Your task to perform on an android device: change the upload size in google photos Image 0: 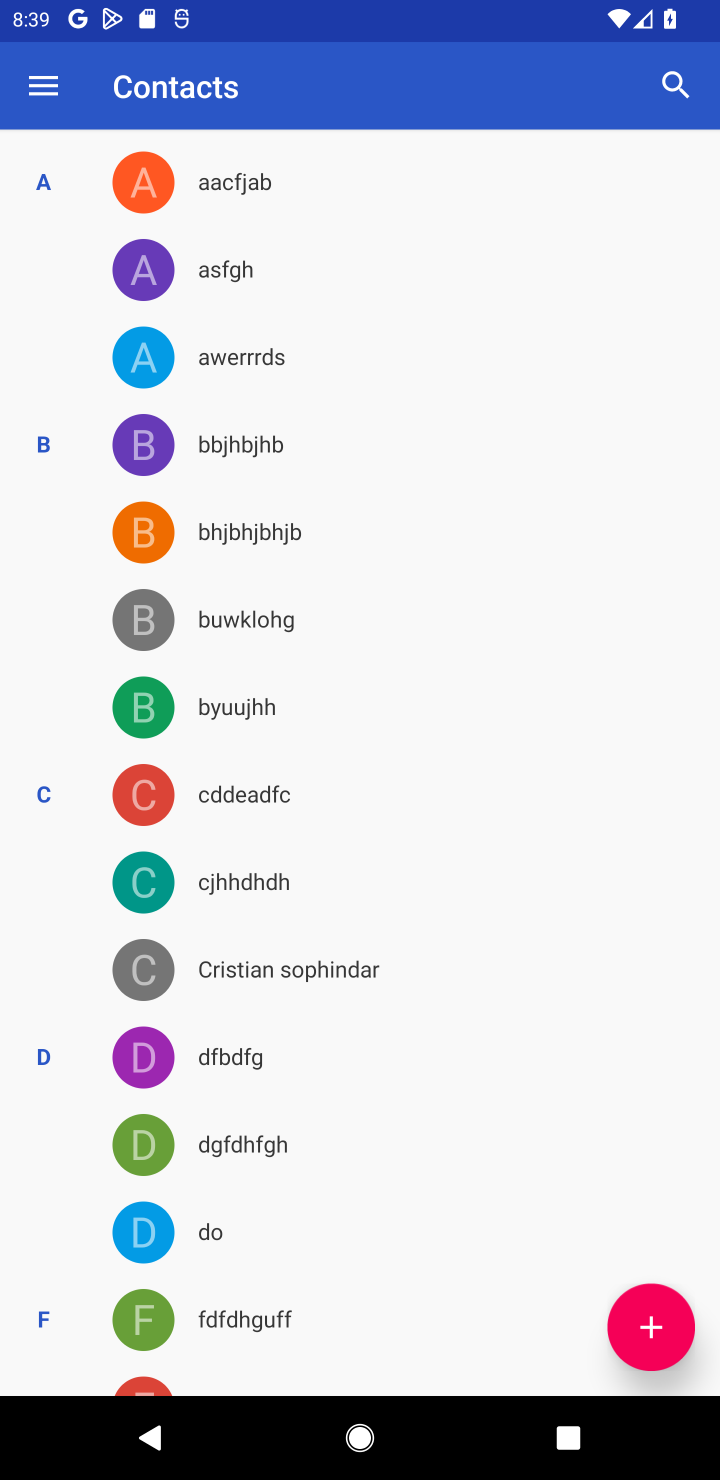
Step 0: press home button
Your task to perform on an android device: change the upload size in google photos Image 1: 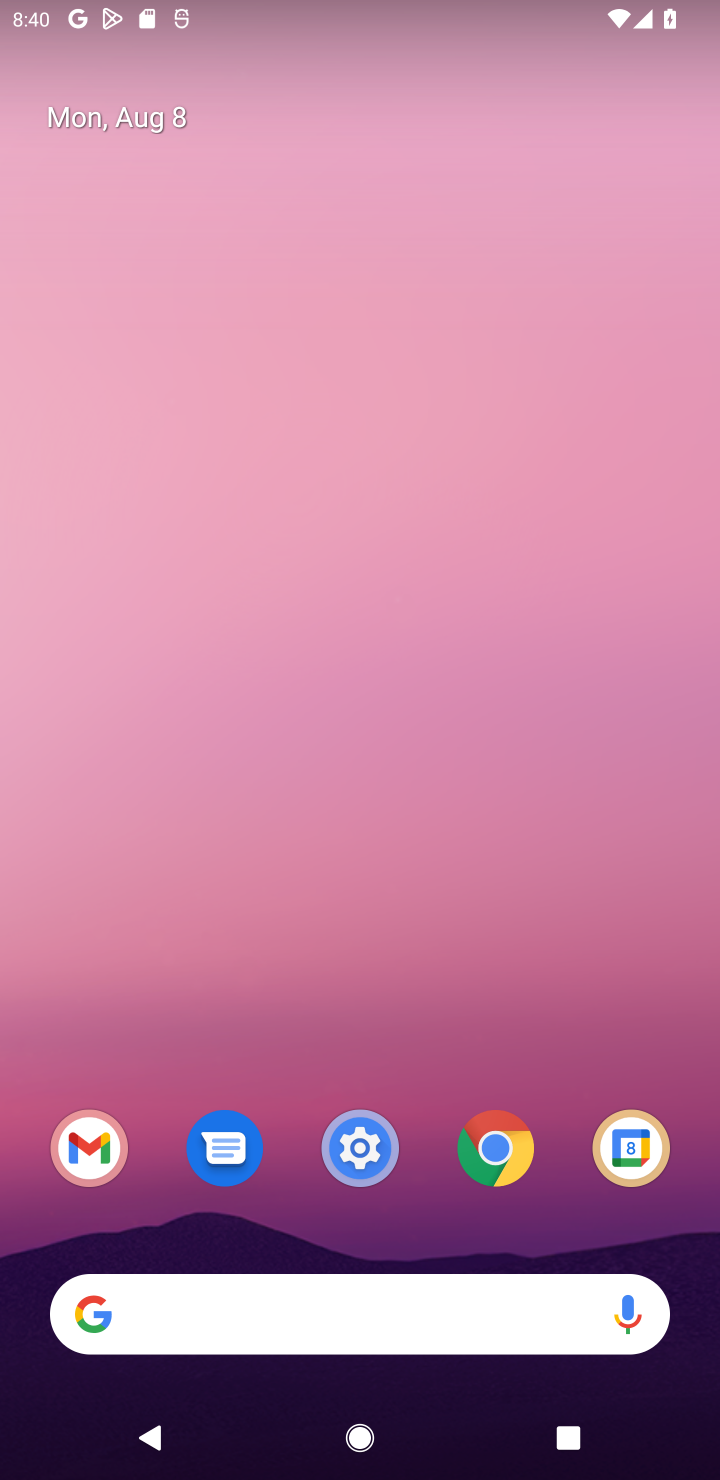
Step 1: drag from (381, 1091) to (397, 111)
Your task to perform on an android device: change the upload size in google photos Image 2: 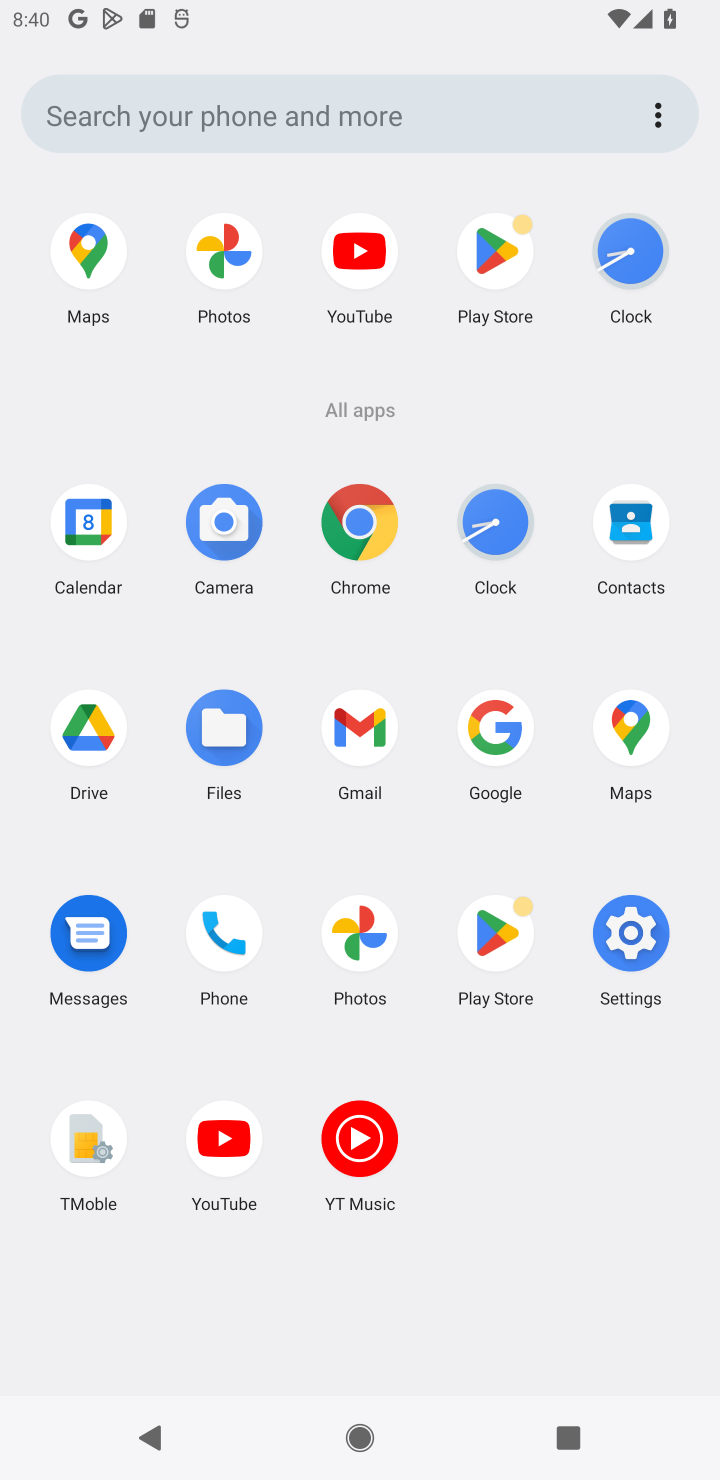
Step 2: click (366, 955)
Your task to perform on an android device: change the upload size in google photos Image 3: 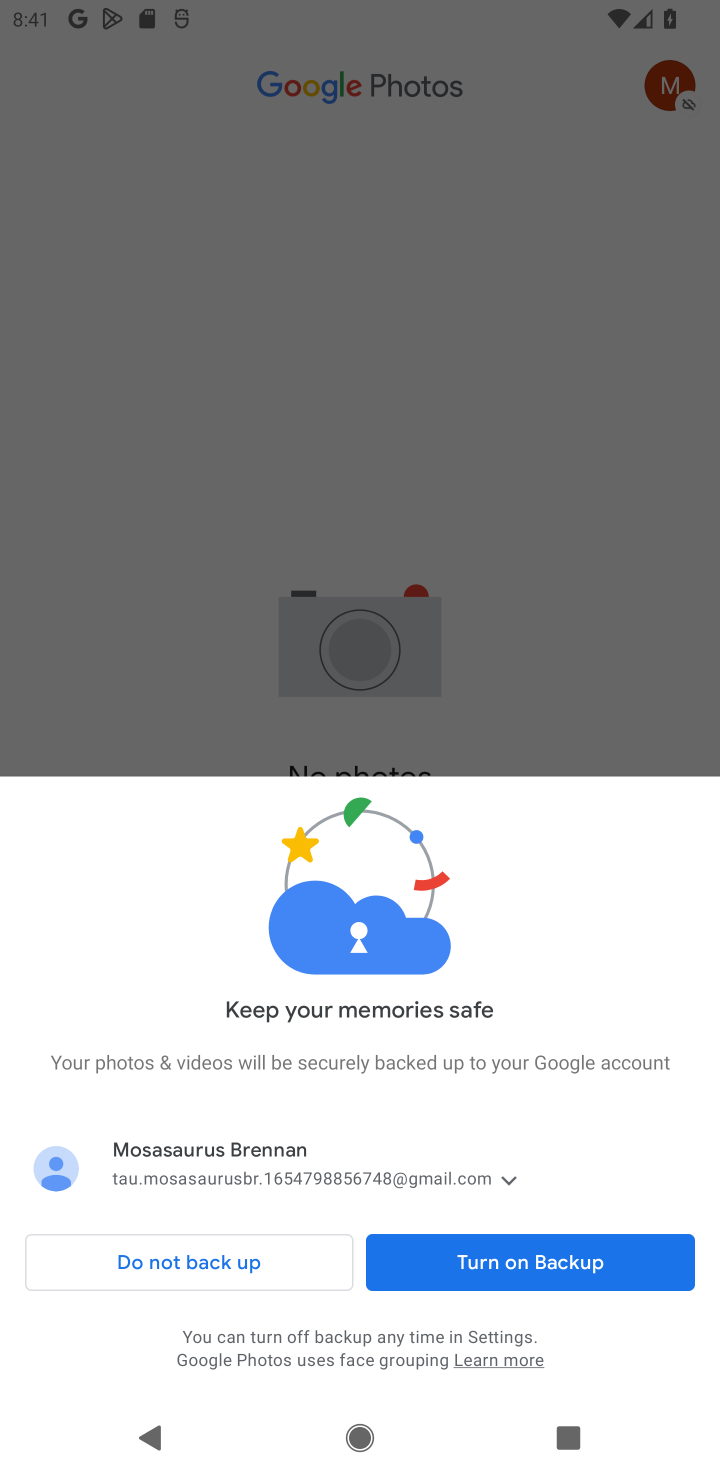
Step 3: click (496, 1260)
Your task to perform on an android device: change the upload size in google photos Image 4: 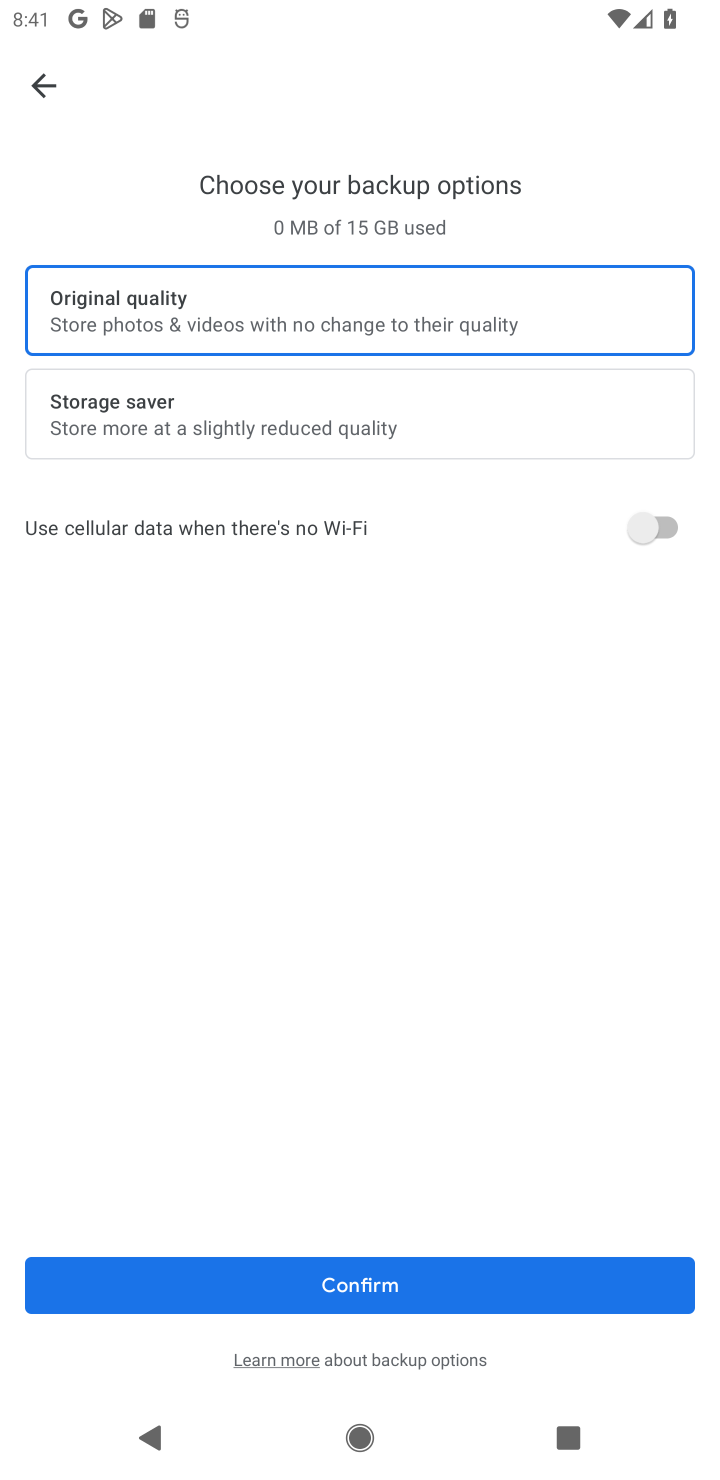
Step 4: click (324, 1289)
Your task to perform on an android device: change the upload size in google photos Image 5: 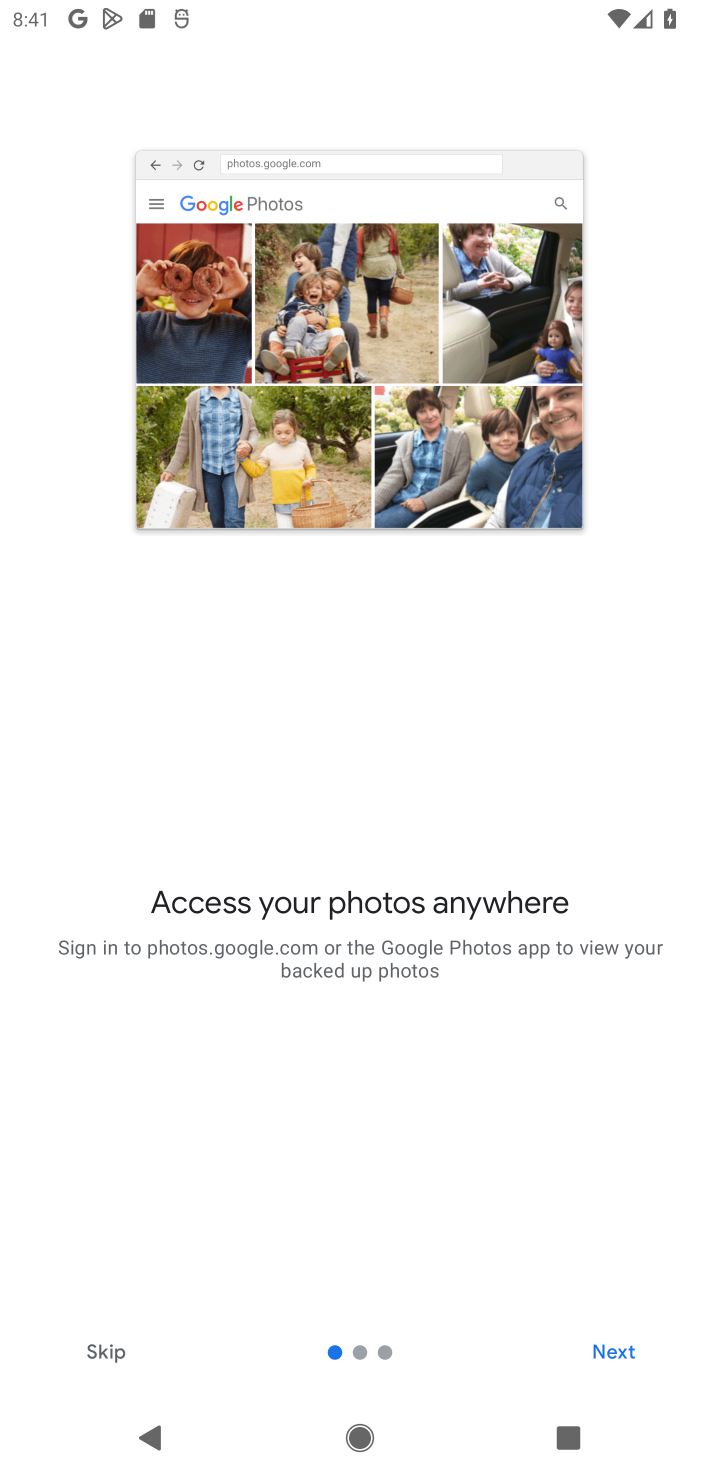
Step 5: click (135, 1341)
Your task to perform on an android device: change the upload size in google photos Image 6: 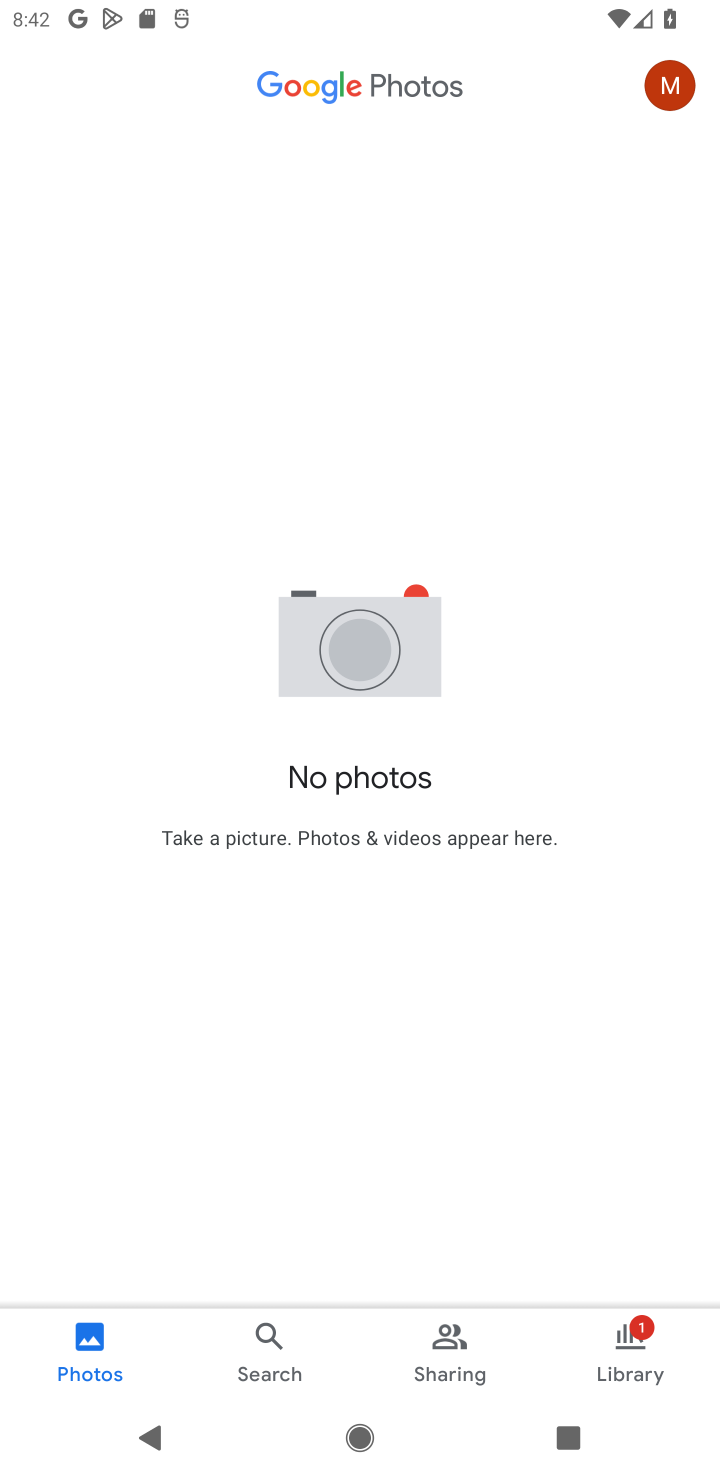
Step 6: click (662, 81)
Your task to perform on an android device: change the upload size in google photos Image 7: 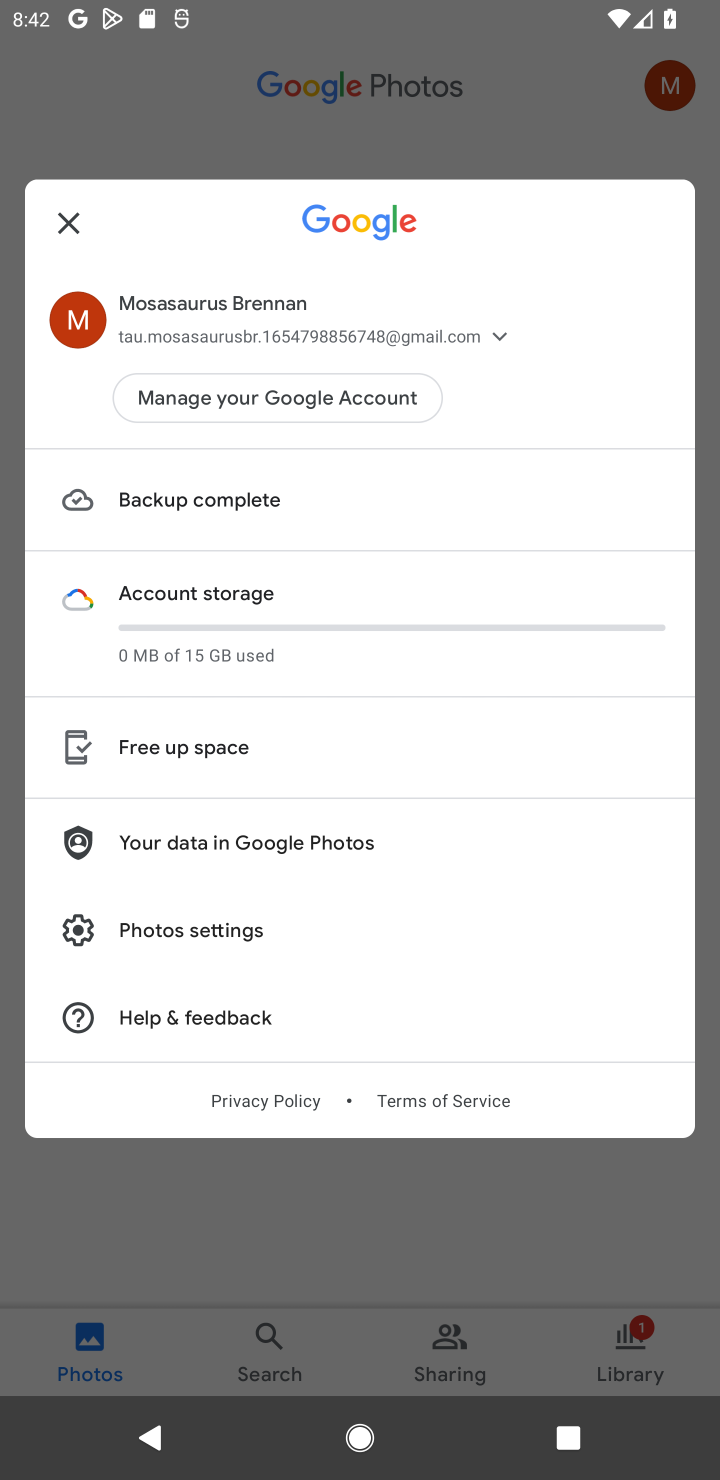
Step 7: click (203, 944)
Your task to perform on an android device: change the upload size in google photos Image 8: 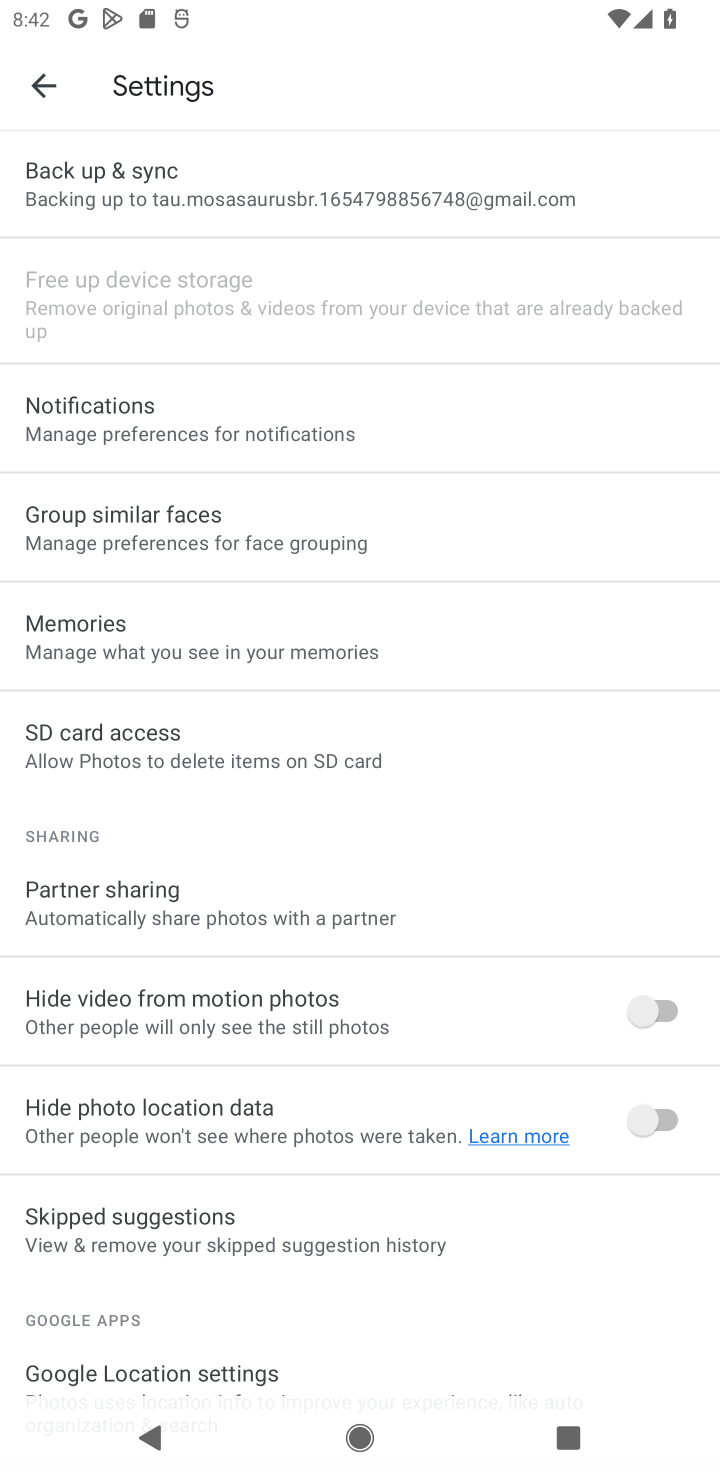
Step 8: click (148, 174)
Your task to perform on an android device: change the upload size in google photos Image 9: 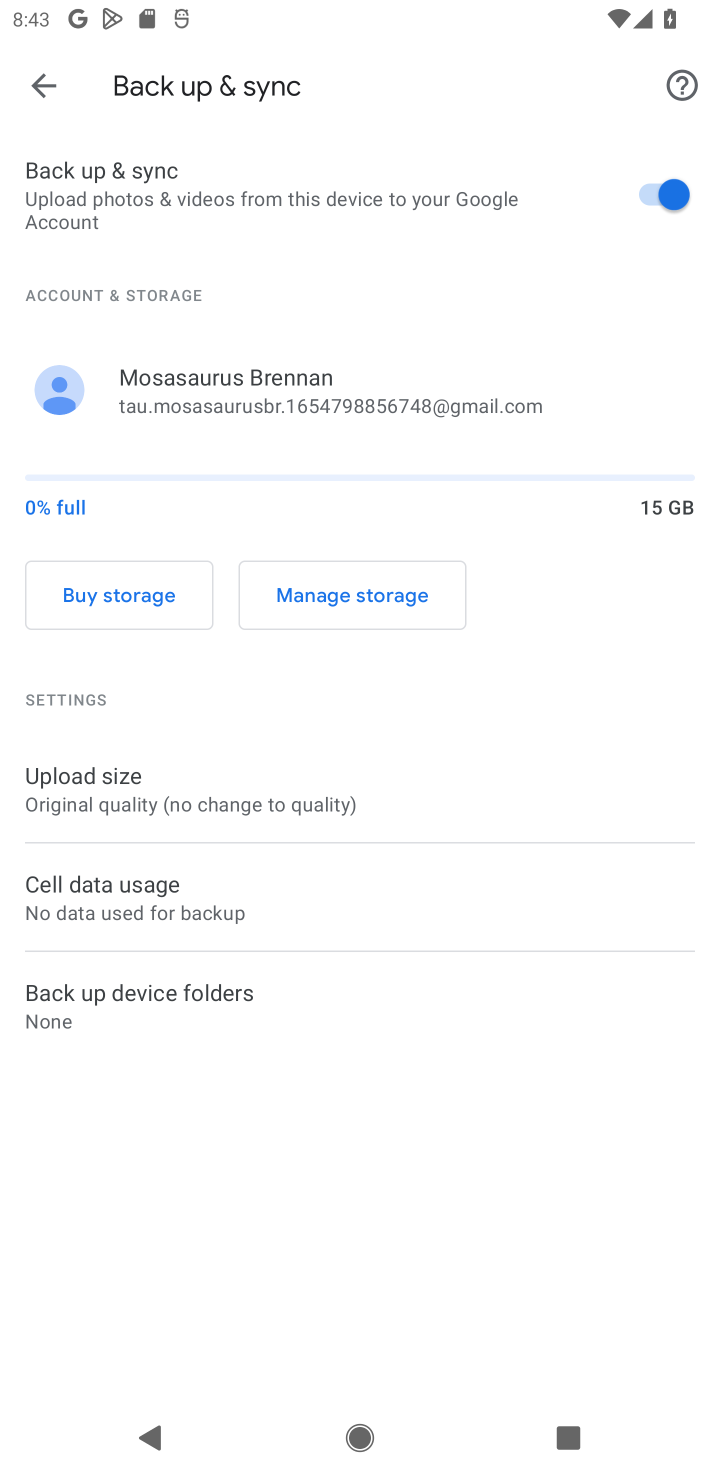
Step 9: click (135, 769)
Your task to perform on an android device: change the upload size in google photos Image 10: 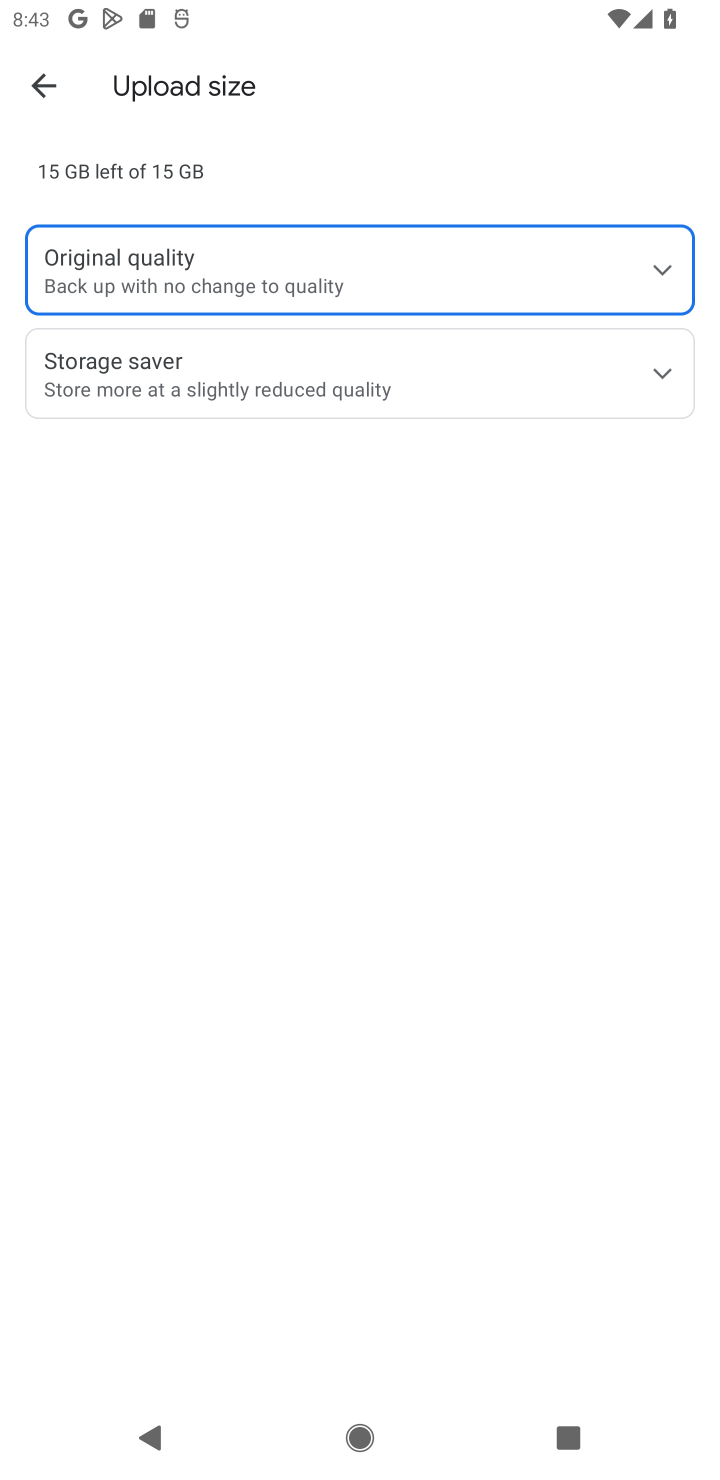
Step 10: click (302, 416)
Your task to perform on an android device: change the upload size in google photos Image 11: 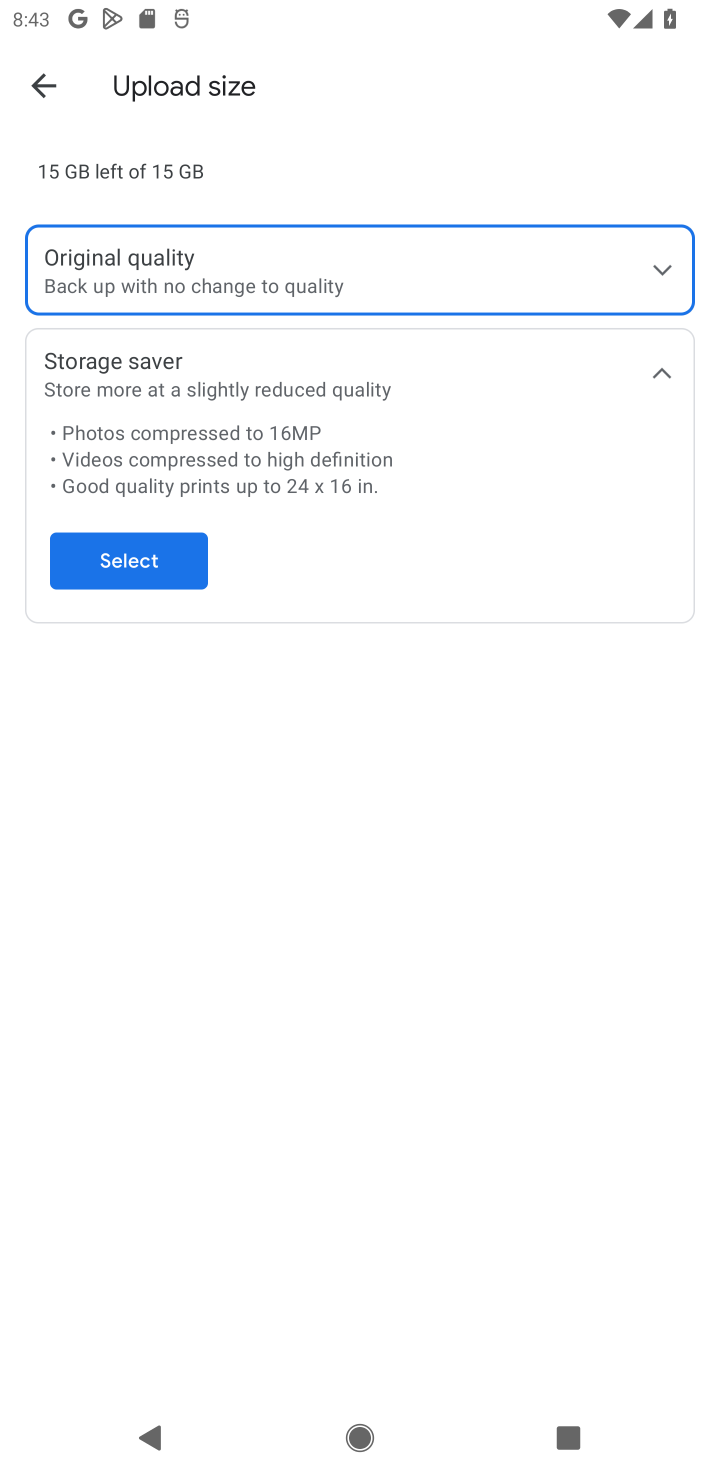
Step 11: click (149, 552)
Your task to perform on an android device: change the upload size in google photos Image 12: 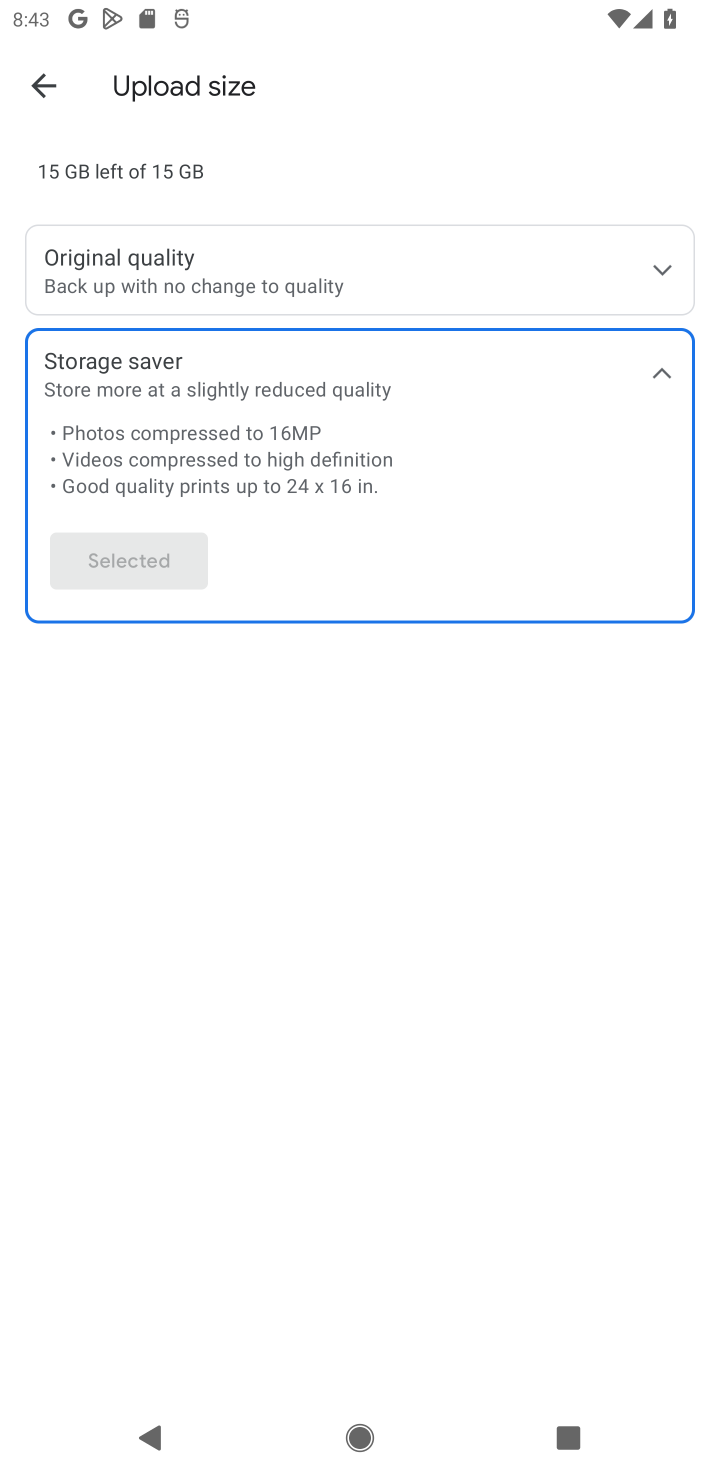
Step 12: task complete